Your task to perform on an android device: Is it going to rain this weekend? Image 0: 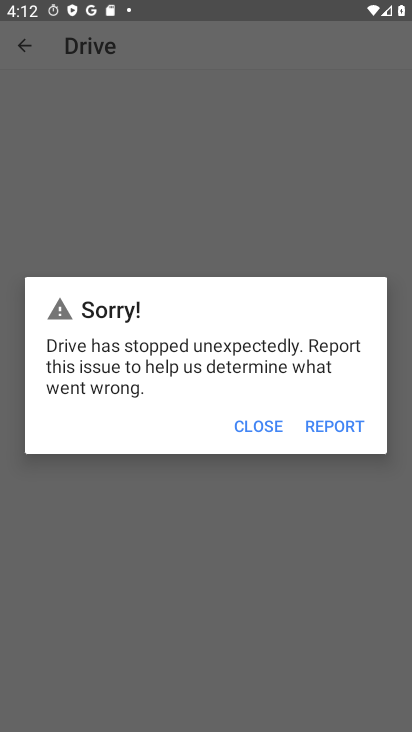
Step 0: press home button
Your task to perform on an android device: Is it going to rain this weekend? Image 1: 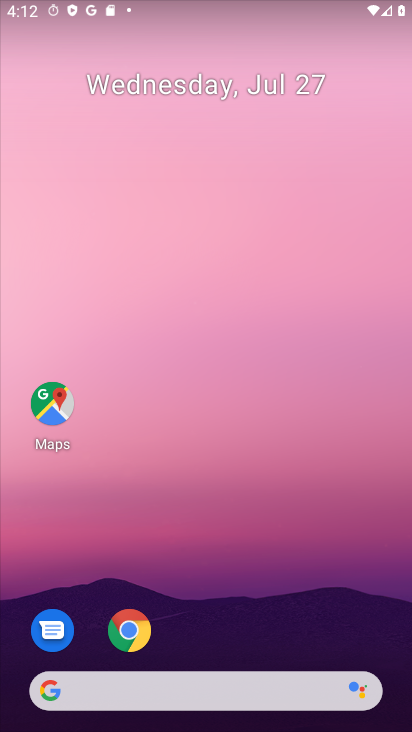
Step 1: drag from (236, 619) to (279, 7)
Your task to perform on an android device: Is it going to rain this weekend? Image 2: 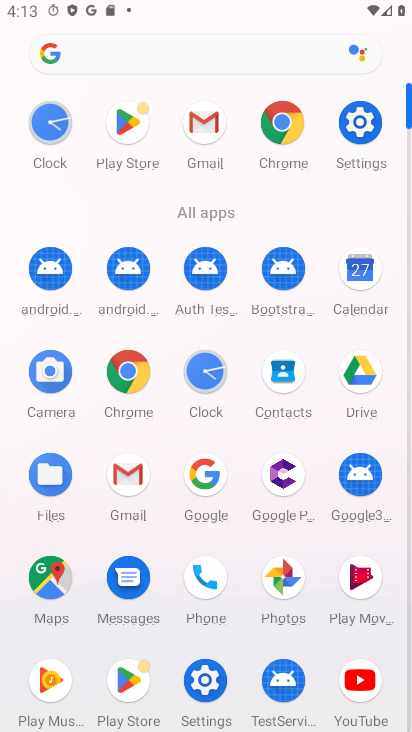
Step 2: click (205, 51)
Your task to perform on an android device: Is it going to rain this weekend? Image 3: 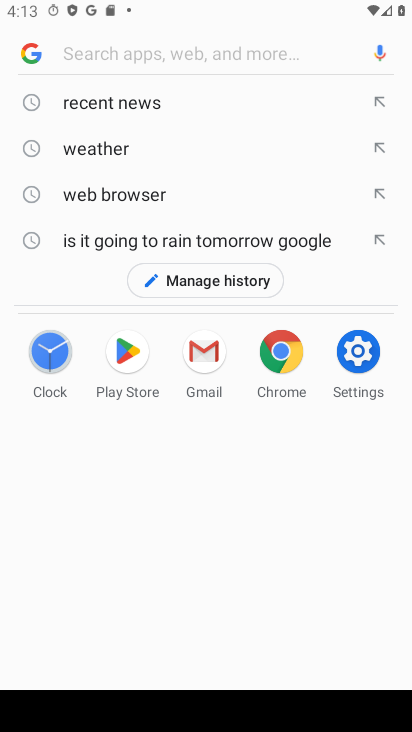
Step 3: click (110, 156)
Your task to perform on an android device: Is it going to rain this weekend? Image 4: 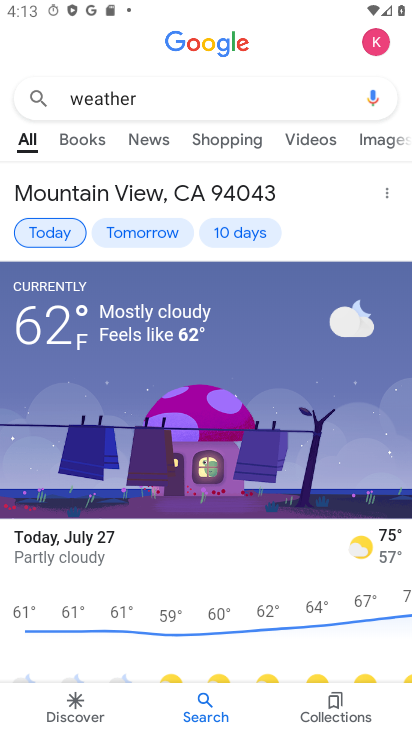
Step 4: click (229, 220)
Your task to perform on an android device: Is it going to rain this weekend? Image 5: 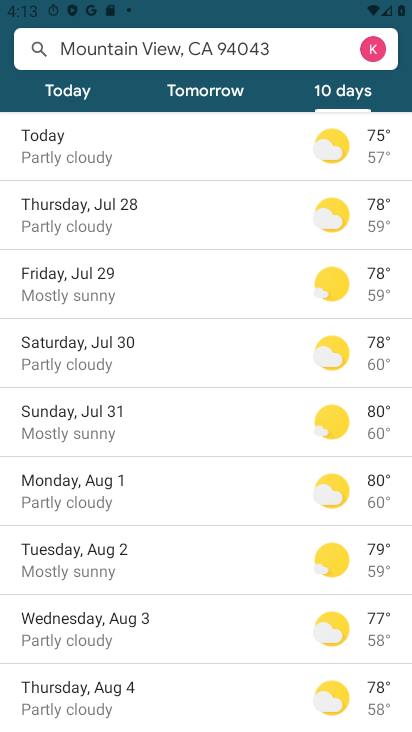
Step 5: task complete